Your task to perform on an android device: Add "razer huntsman" to the cart on ebay, then select checkout. Image 0: 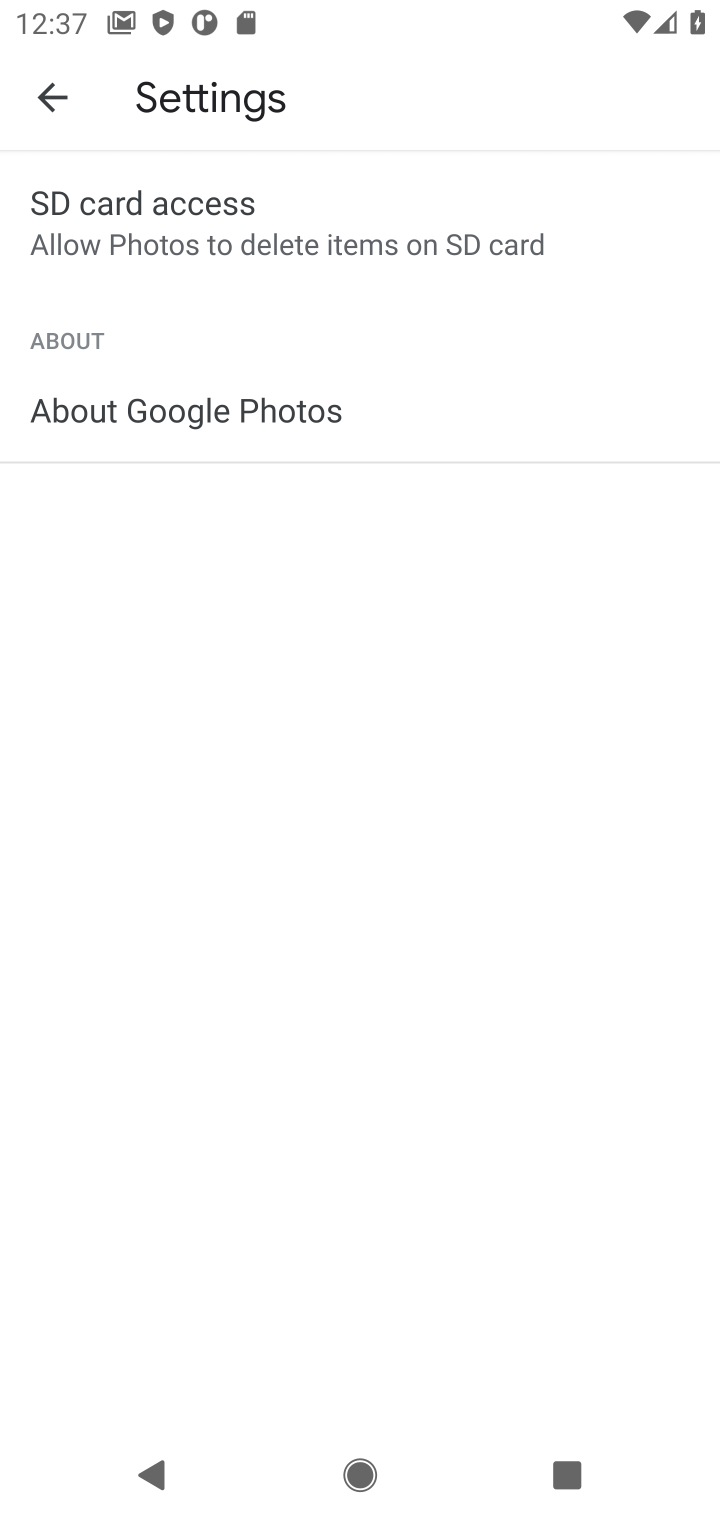
Step 0: press home button
Your task to perform on an android device: Add "razer huntsman" to the cart on ebay, then select checkout. Image 1: 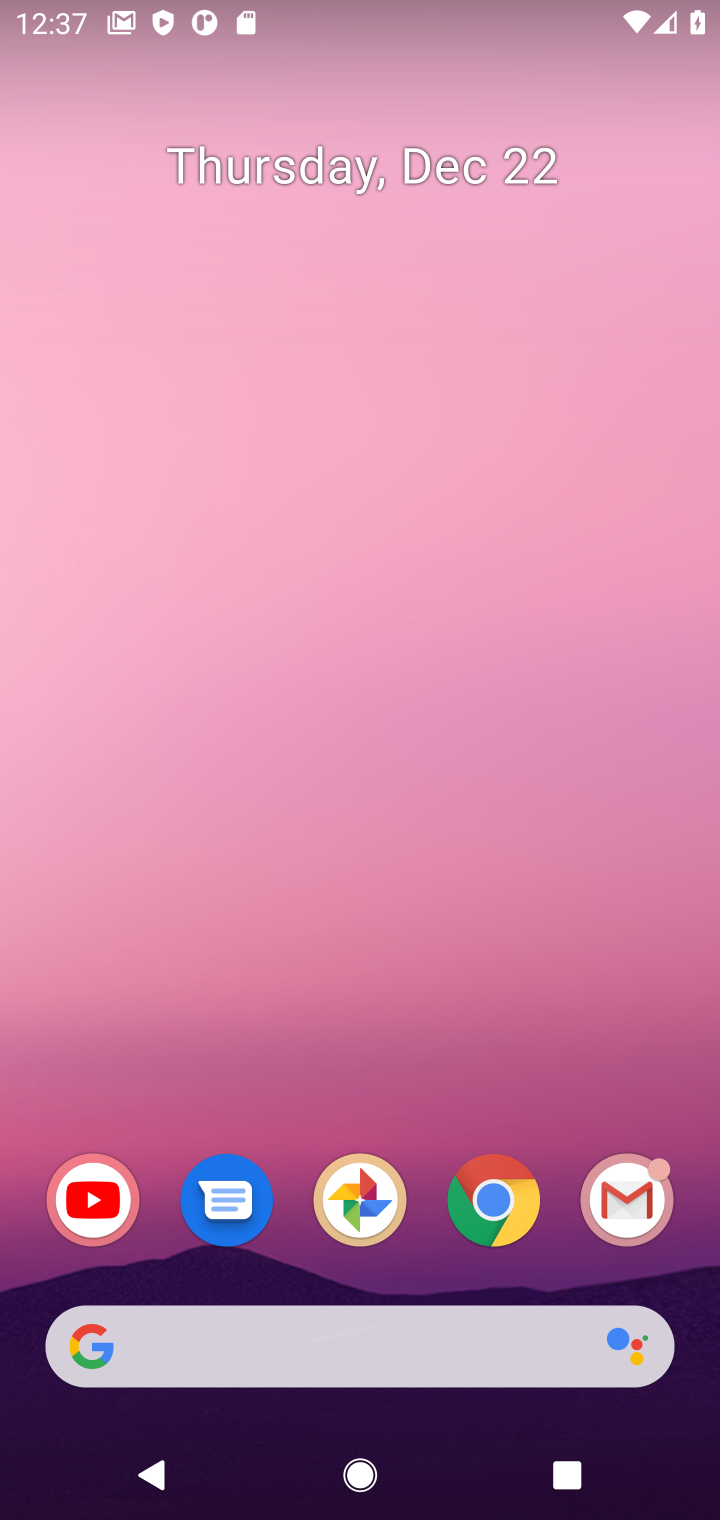
Step 1: click (490, 1202)
Your task to perform on an android device: Add "razer huntsman" to the cart on ebay, then select checkout. Image 2: 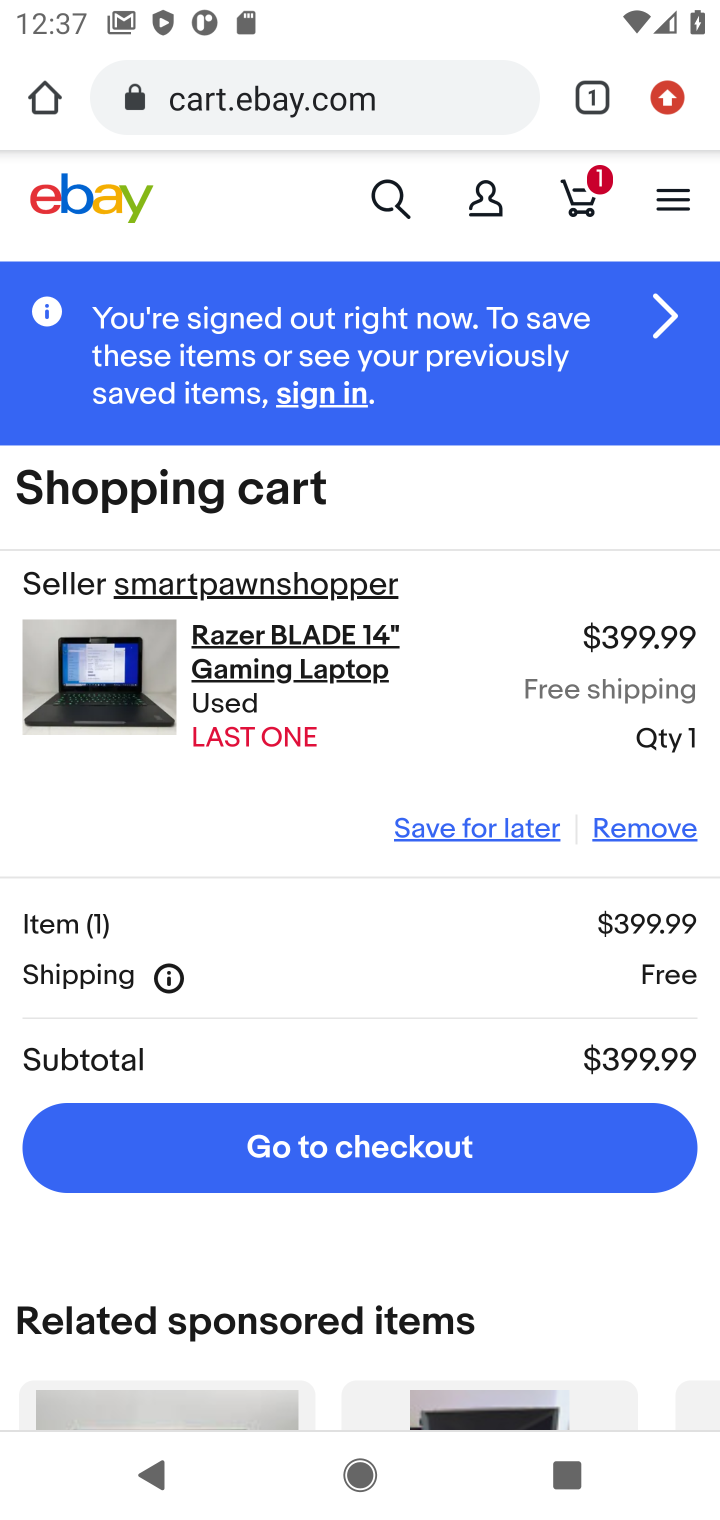
Step 2: click (389, 203)
Your task to perform on an android device: Add "razer huntsman" to the cart on ebay, then select checkout. Image 3: 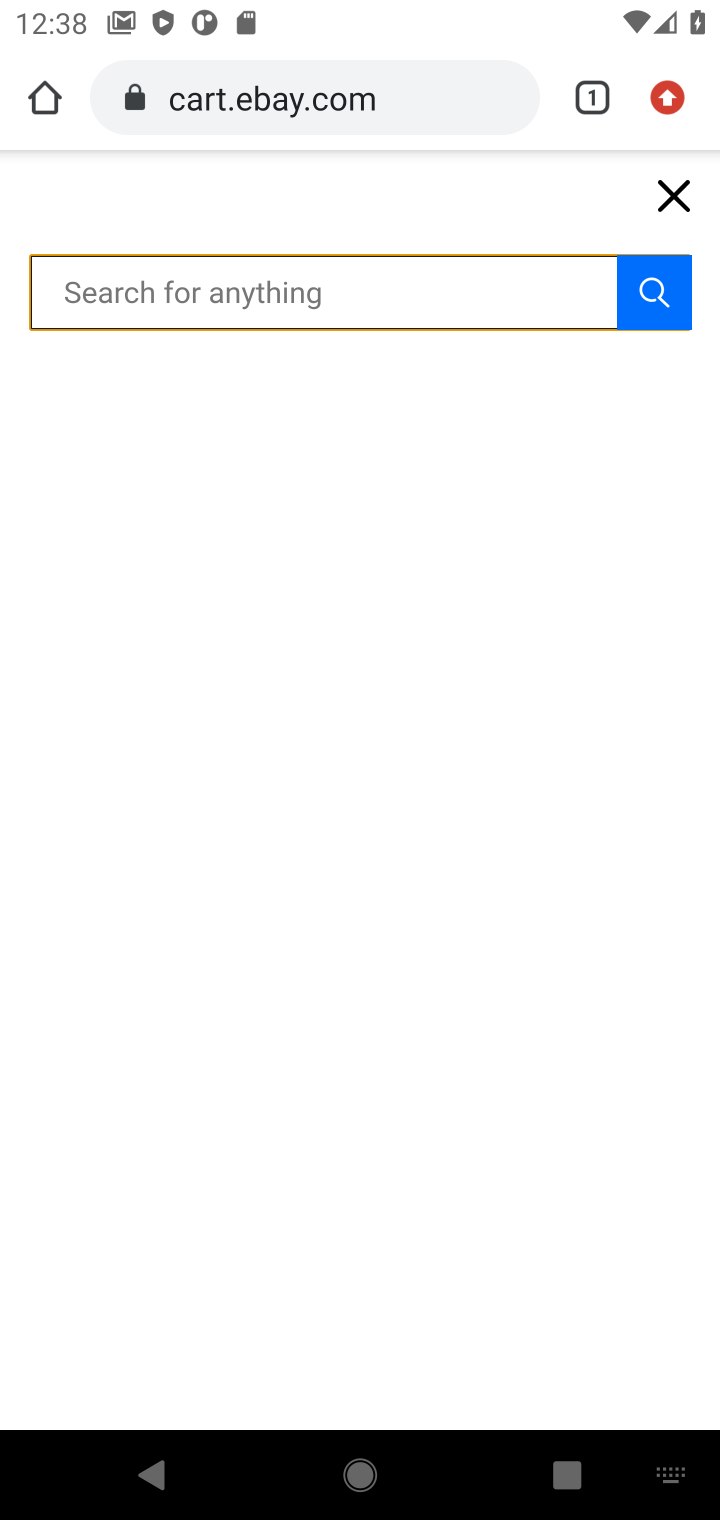
Step 3: click (135, 285)
Your task to perform on an android device: Add "razer huntsman" to the cart on ebay, then select checkout. Image 4: 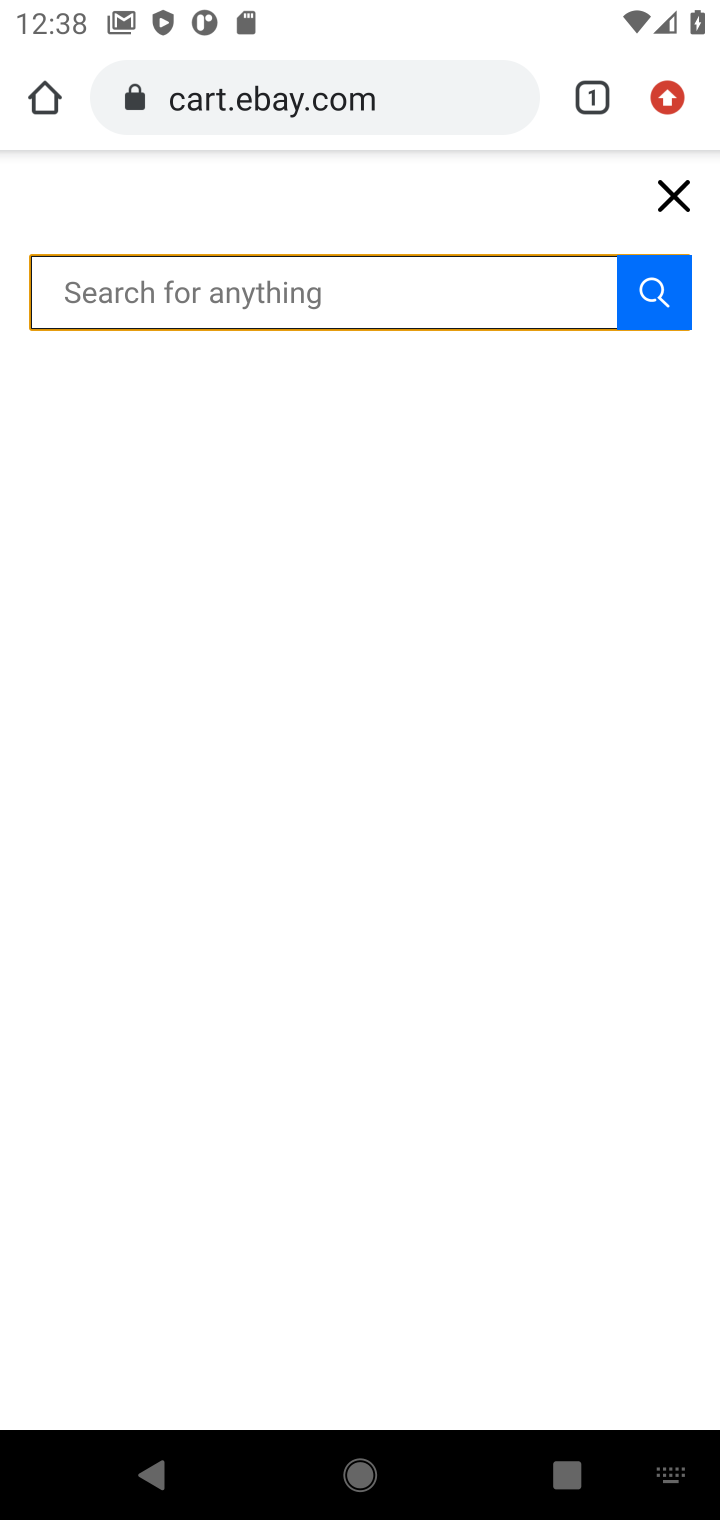
Step 4: type "razer huntsman"
Your task to perform on an android device: Add "razer huntsman" to the cart on ebay, then select checkout. Image 5: 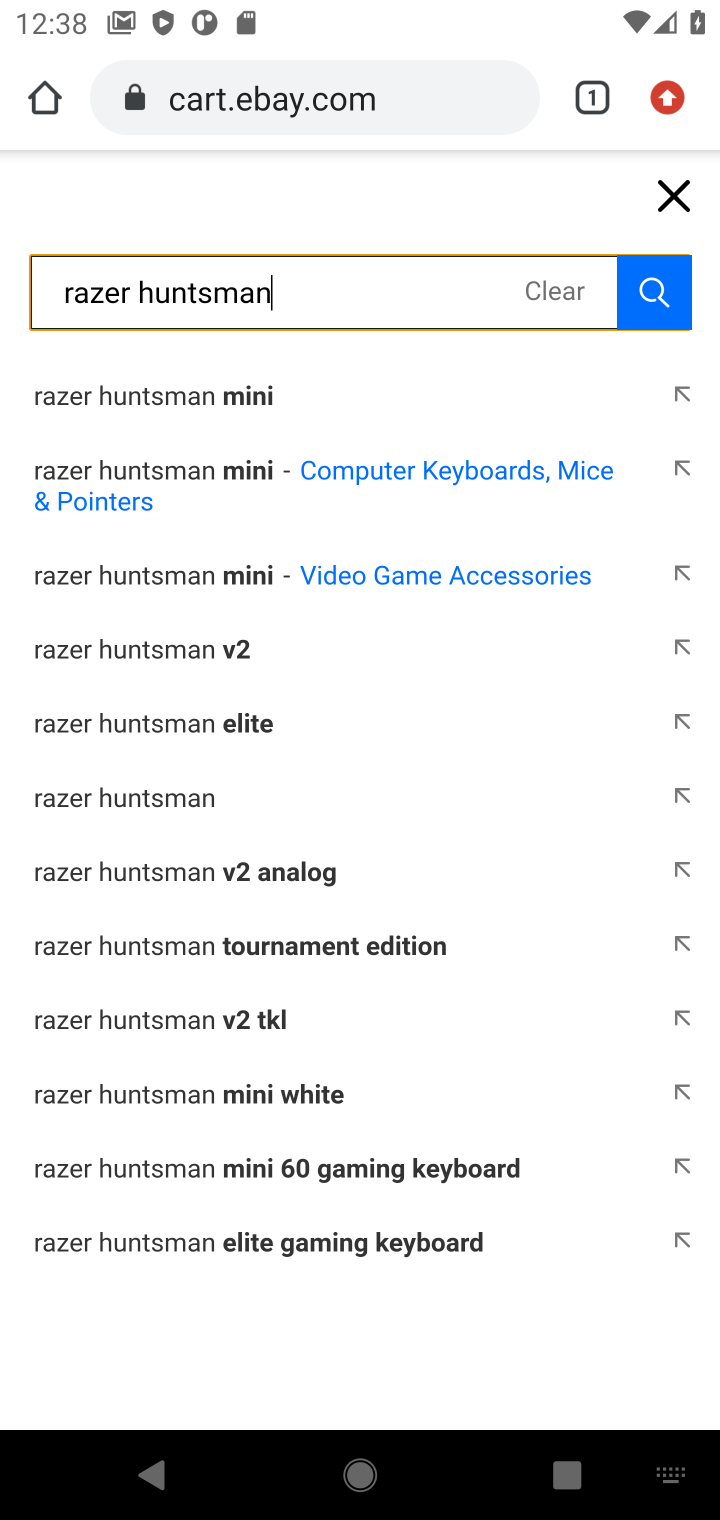
Step 5: click (112, 800)
Your task to perform on an android device: Add "razer huntsman" to the cart on ebay, then select checkout. Image 6: 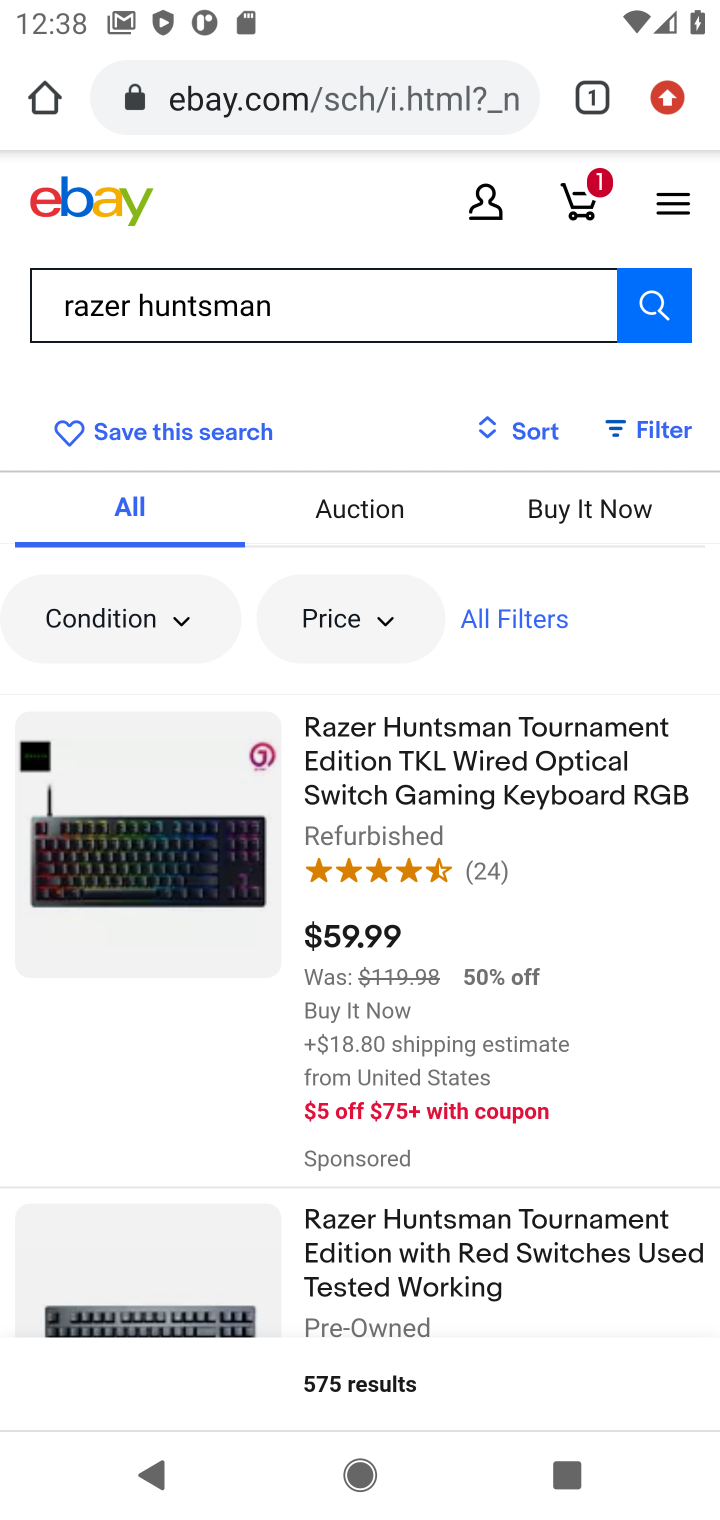
Step 6: click (452, 789)
Your task to perform on an android device: Add "razer huntsman" to the cart on ebay, then select checkout. Image 7: 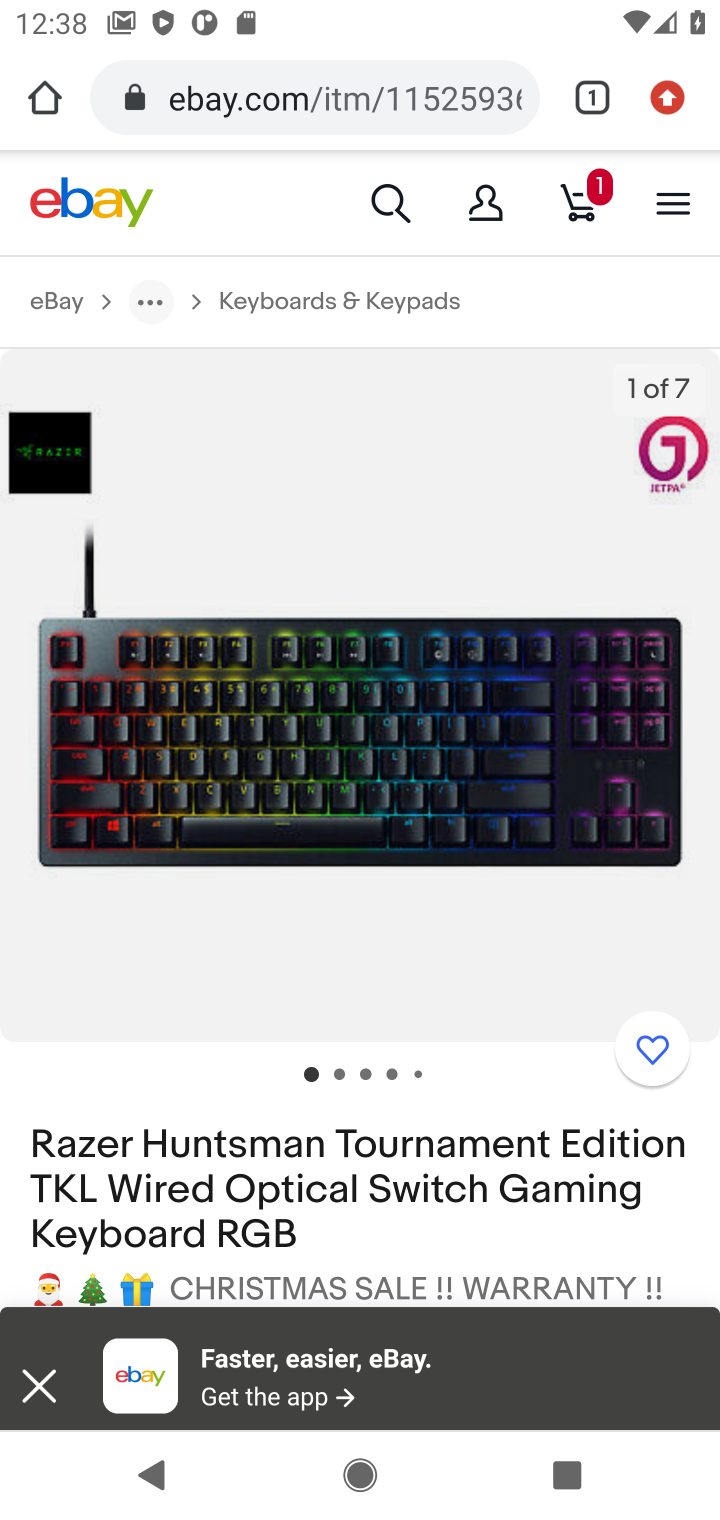
Step 7: drag from (331, 1131) to (333, 587)
Your task to perform on an android device: Add "razer huntsman" to the cart on ebay, then select checkout. Image 8: 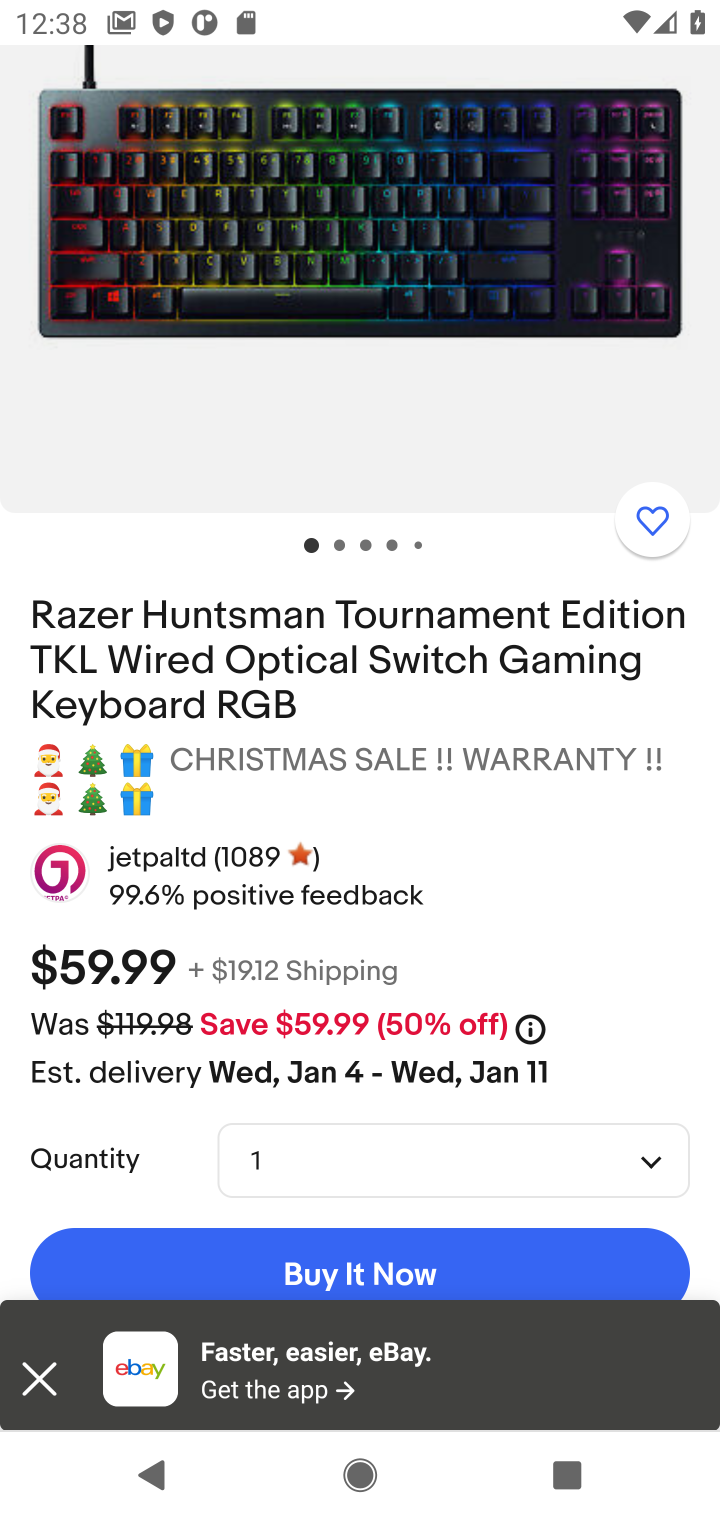
Step 8: drag from (285, 812) to (291, 538)
Your task to perform on an android device: Add "razer huntsman" to the cart on ebay, then select checkout. Image 9: 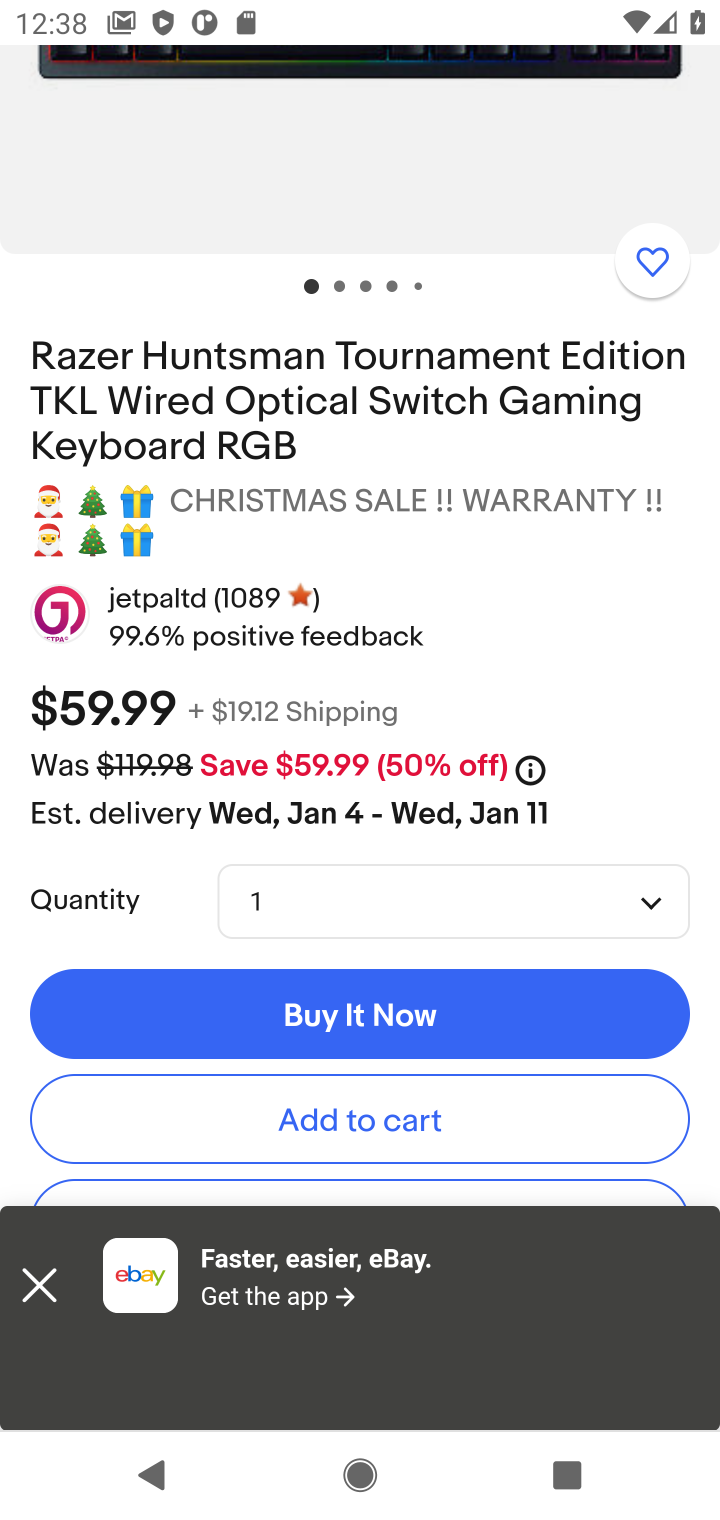
Step 9: click (309, 1121)
Your task to perform on an android device: Add "razer huntsman" to the cart on ebay, then select checkout. Image 10: 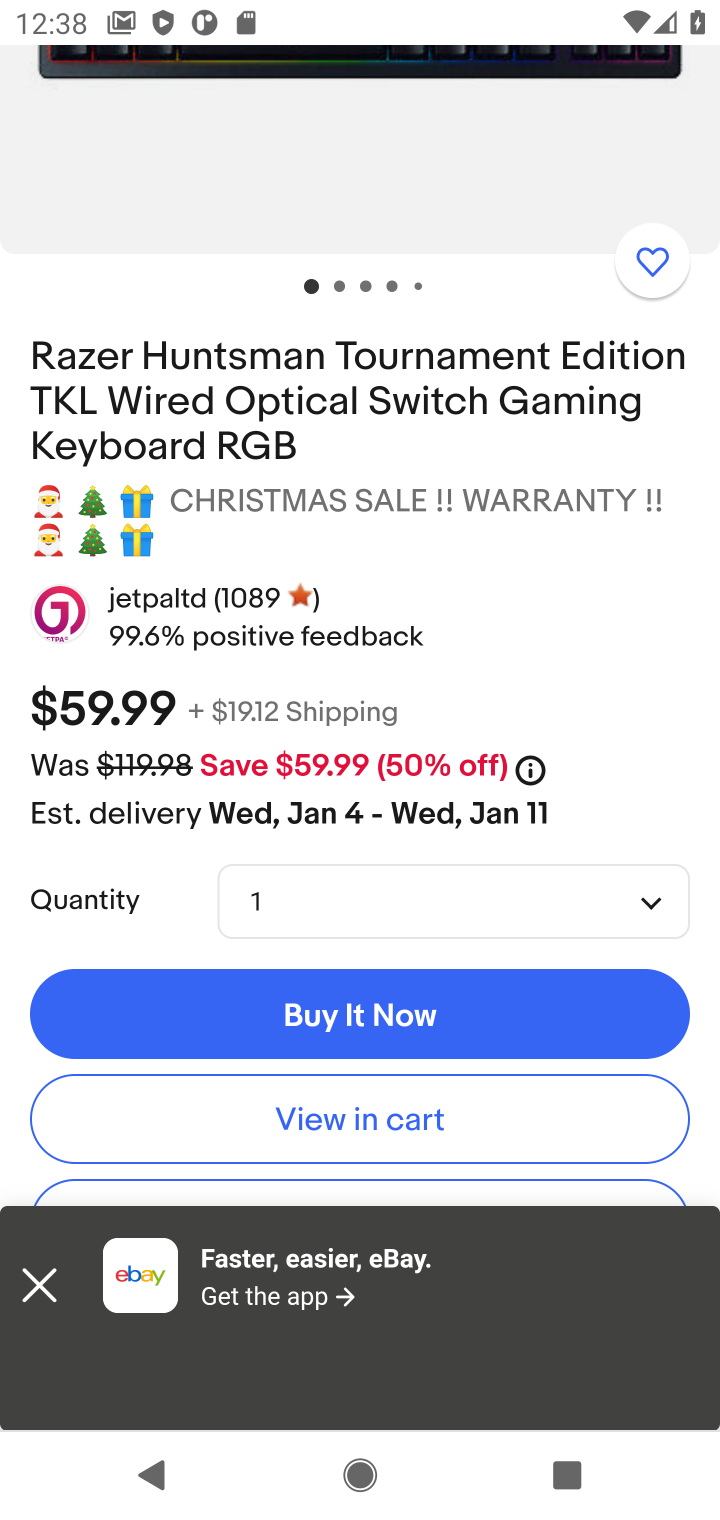
Step 10: click (309, 1121)
Your task to perform on an android device: Add "razer huntsman" to the cart on ebay, then select checkout. Image 11: 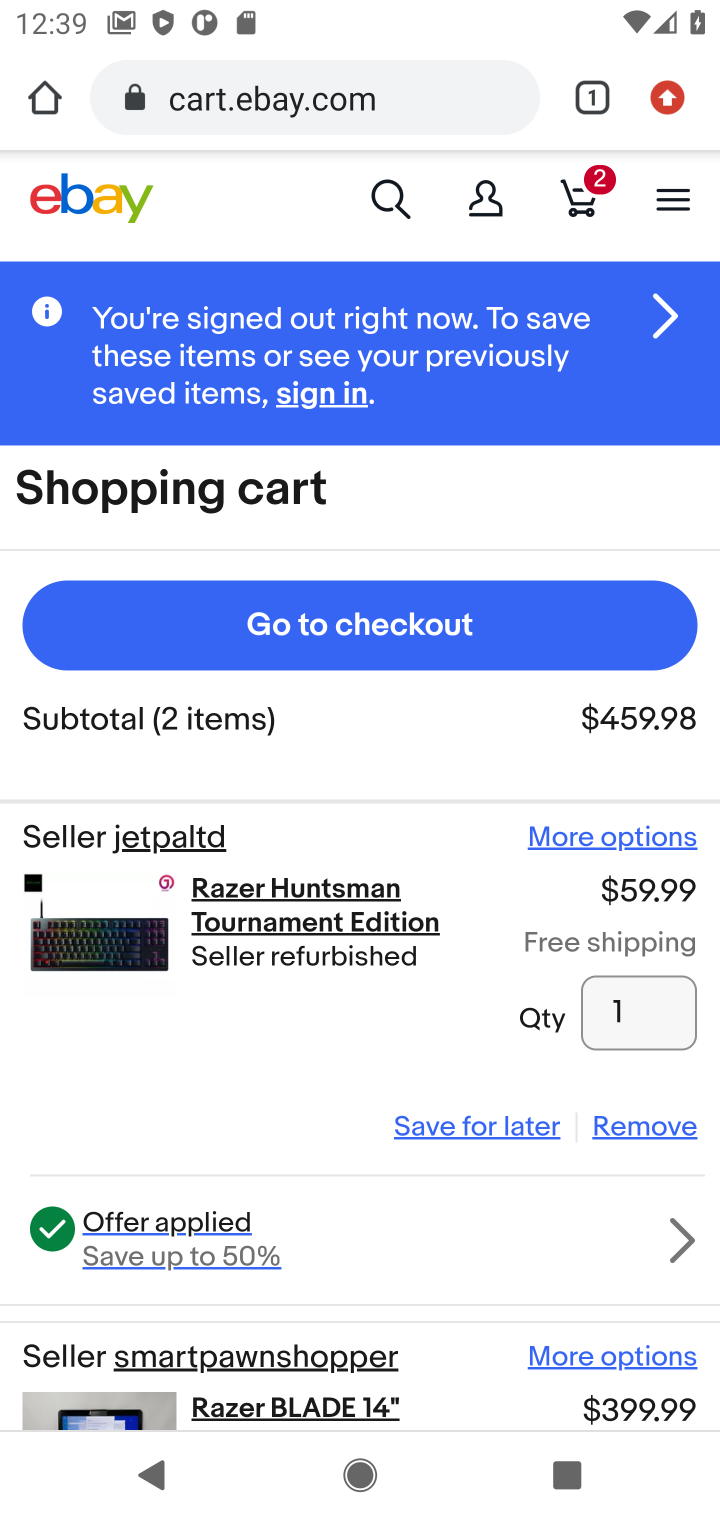
Step 11: click (310, 627)
Your task to perform on an android device: Add "razer huntsman" to the cart on ebay, then select checkout. Image 12: 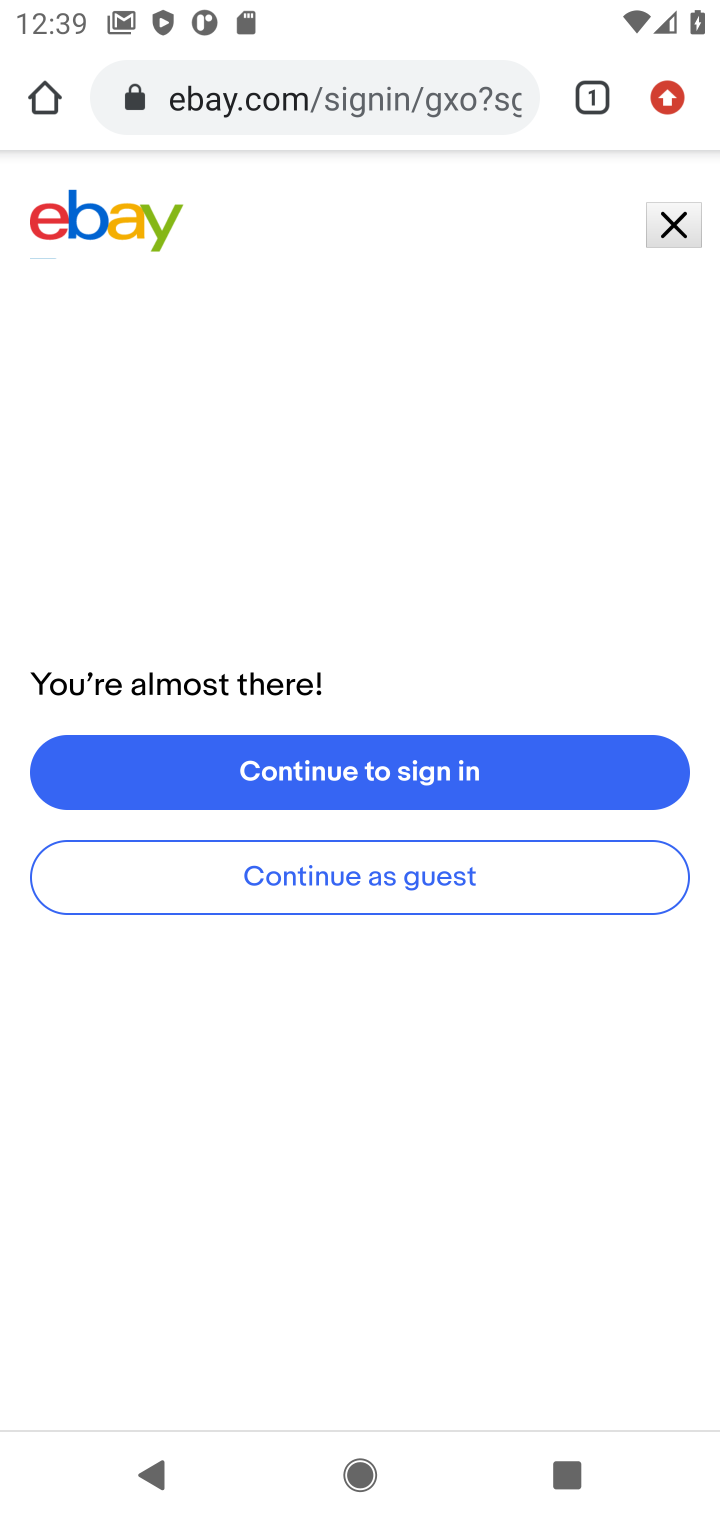
Step 12: task complete